Your task to perform on an android device: Search for flights from NYC to Paris Image 0: 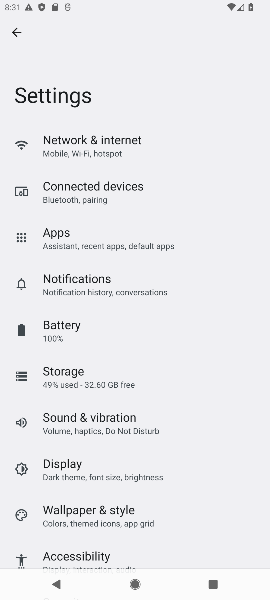
Step 0: press home button
Your task to perform on an android device: Search for flights from NYC to Paris Image 1: 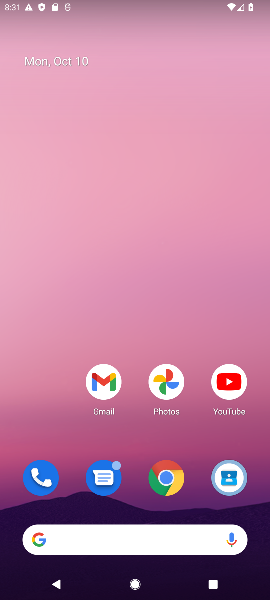
Step 1: click (172, 478)
Your task to perform on an android device: Search for flights from NYC to Paris Image 2: 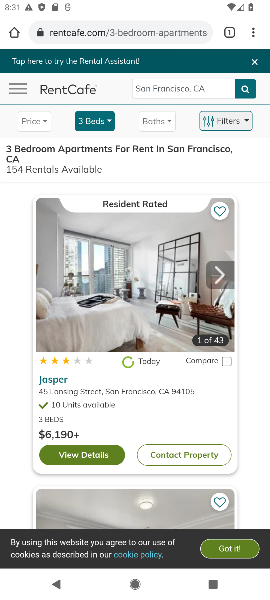
Step 2: click (113, 31)
Your task to perform on an android device: Search for flights from NYC to Paris Image 3: 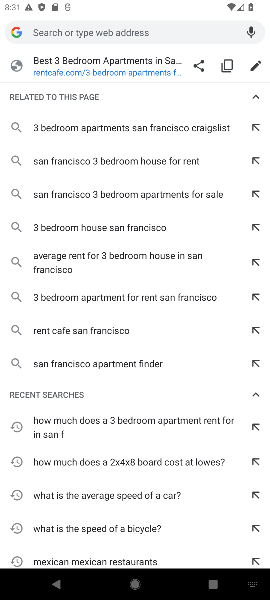
Step 3: type "flights from NYC to Paris"
Your task to perform on an android device: Search for flights from NYC to Paris Image 4: 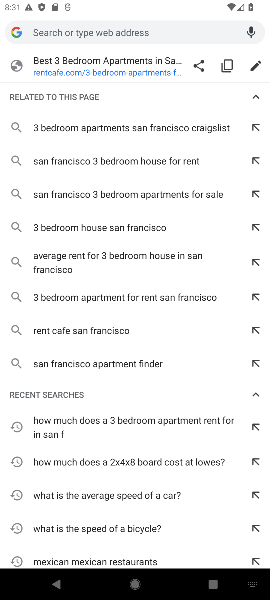
Step 4: click (127, 29)
Your task to perform on an android device: Search for flights from NYC to Paris Image 5: 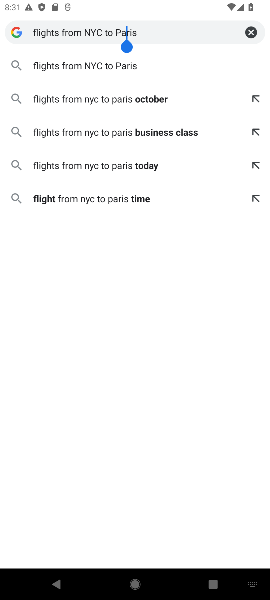
Step 5: click (109, 65)
Your task to perform on an android device: Search for flights from NYC to Paris Image 6: 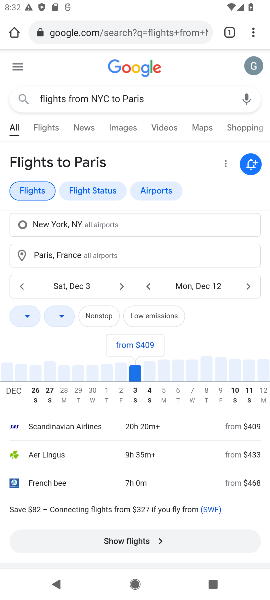
Step 6: task complete